Your task to perform on an android device: Open Google Image 0: 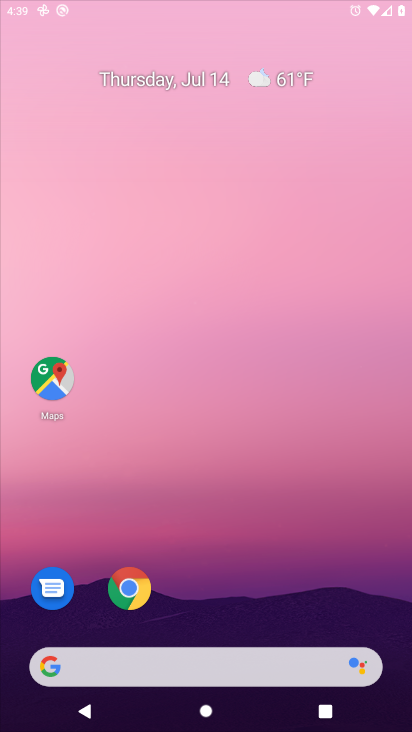
Step 0: press home button
Your task to perform on an android device: Open Google Image 1: 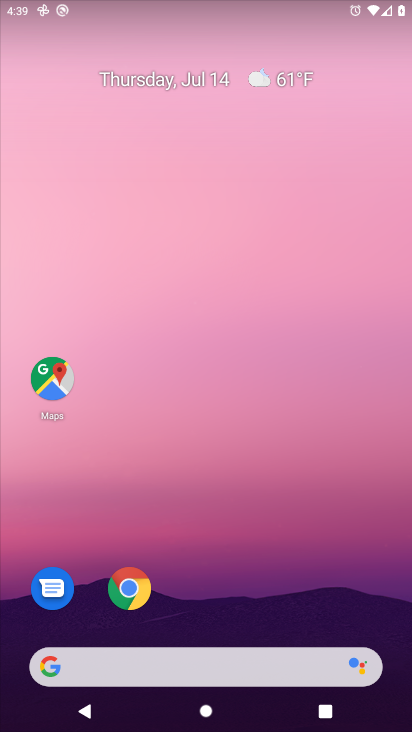
Step 1: click (44, 669)
Your task to perform on an android device: Open Google Image 2: 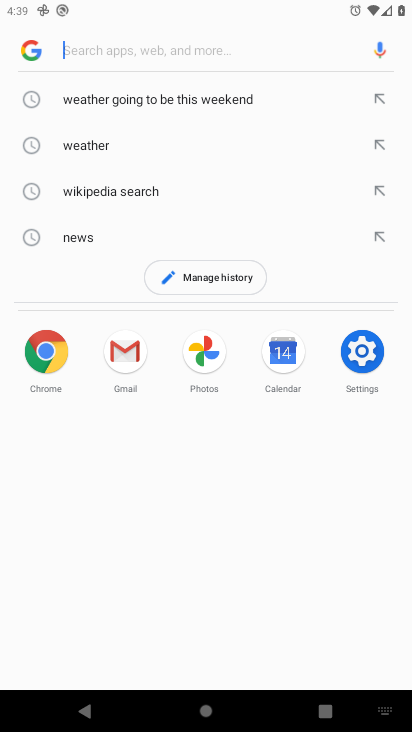
Step 2: task complete